Your task to perform on an android device: When is my next meeting? Image 0: 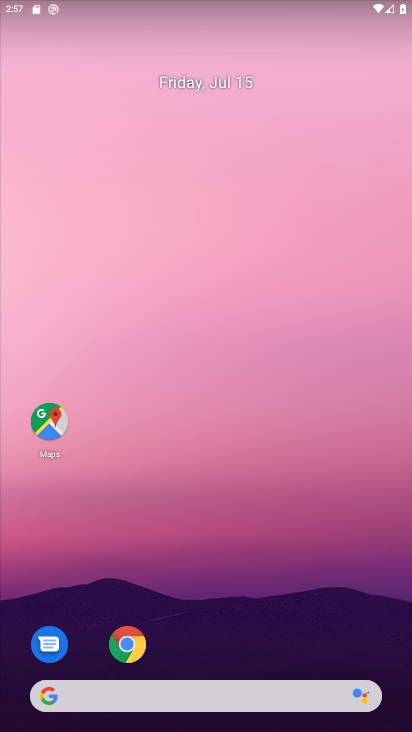
Step 0: click (220, 84)
Your task to perform on an android device: When is my next meeting? Image 1: 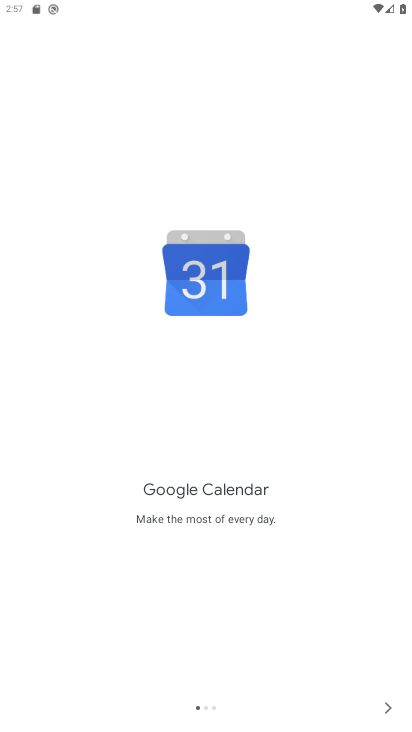
Step 1: click (390, 713)
Your task to perform on an android device: When is my next meeting? Image 2: 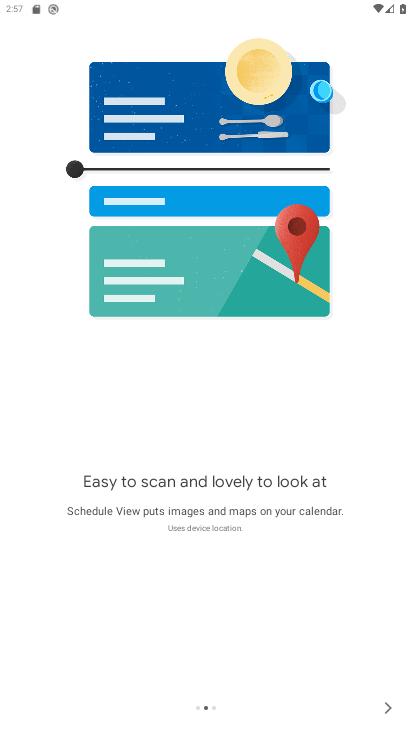
Step 2: click (390, 713)
Your task to perform on an android device: When is my next meeting? Image 3: 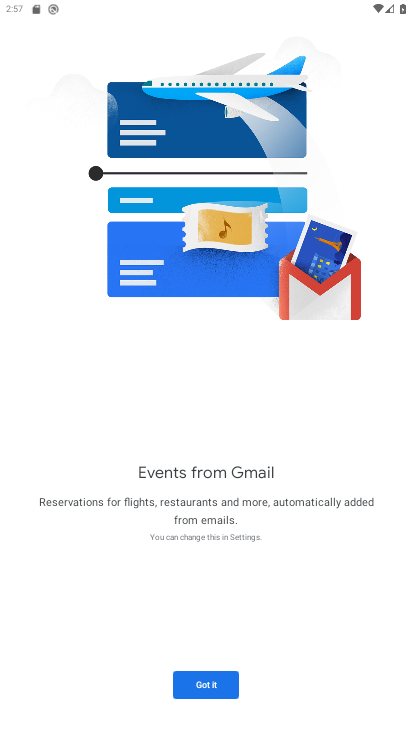
Step 3: click (209, 681)
Your task to perform on an android device: When is my next meeting? Image 4: 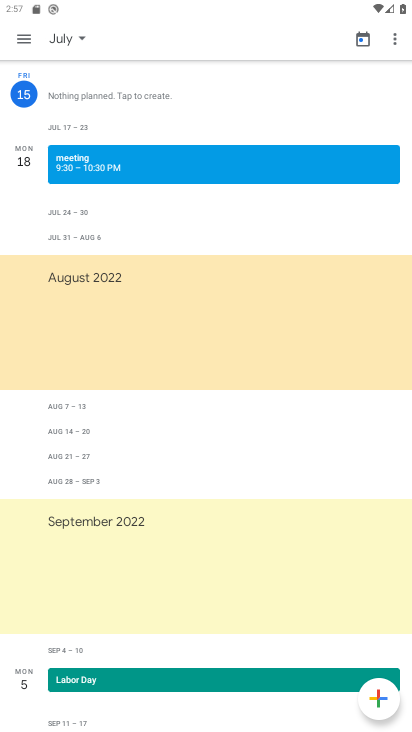
Step 4: click (72, 49)
Your task to perform on an android device: When is my next meeting? Image 5: 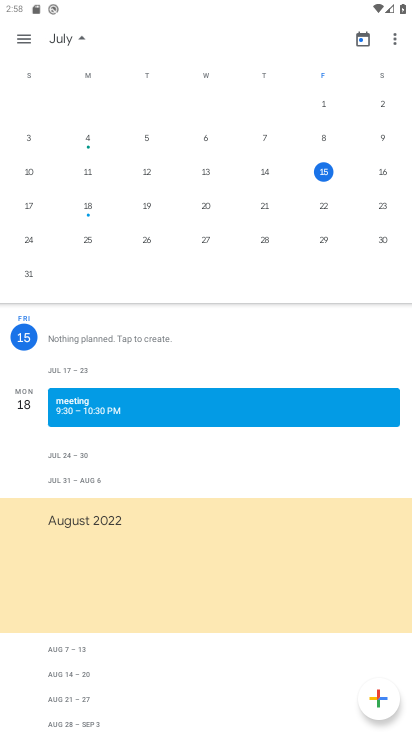
Step 5: task complete